Your task to perform on an android device: set default search engine in the chrome app Image 0: 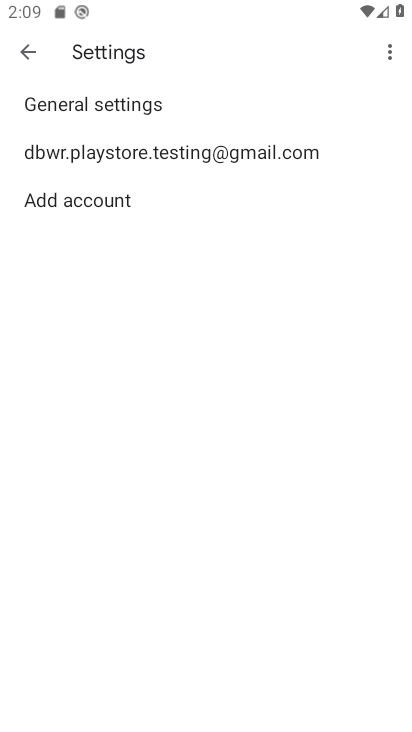
Step 0: press home button
Your task to perform on an android device: set default search engine in the chrome app Image 1: 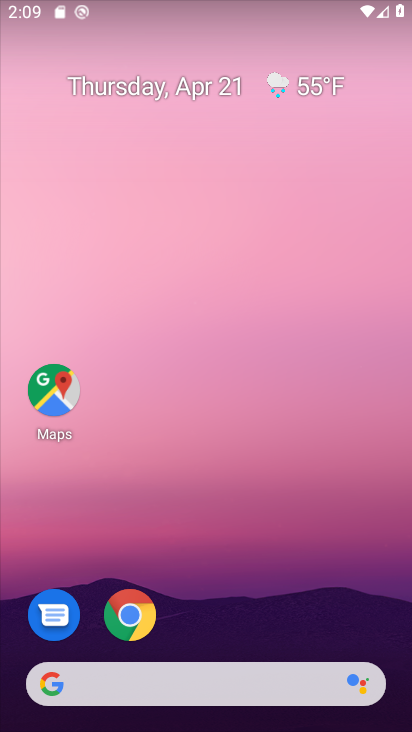
Step 1: click (134, 616)
Your task to perform on an android device: set default search engine in the chrome app Image 2: 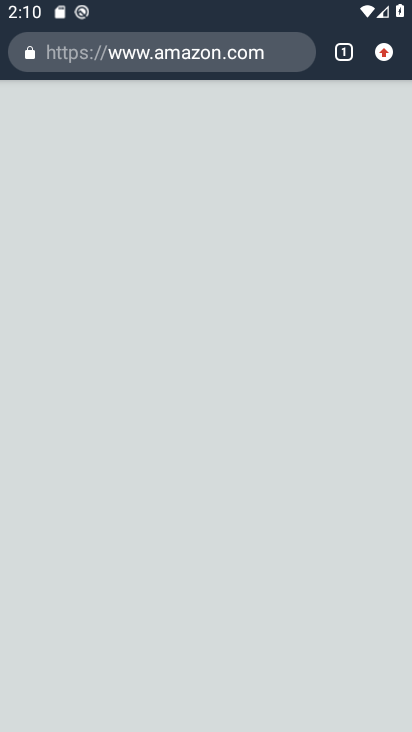
Step 2: click (384, 53)
Your task to perform on an android device: set default search engine in the chrome app Image 3: 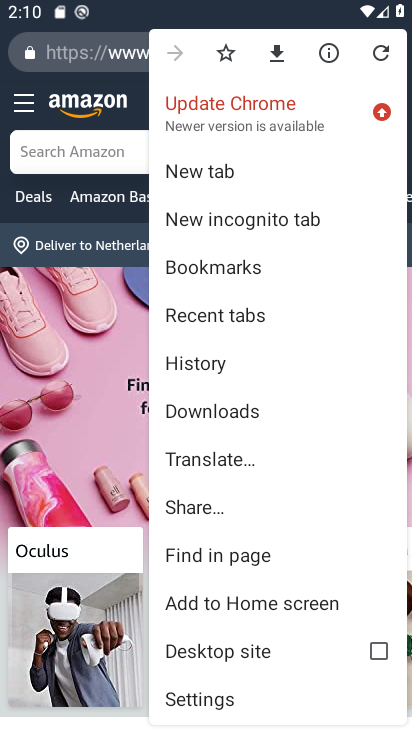
Step 3: drag from (219, 624) to (225, 413)
Your task to perform on an android device: set default search engine in the chrome app Image 4: 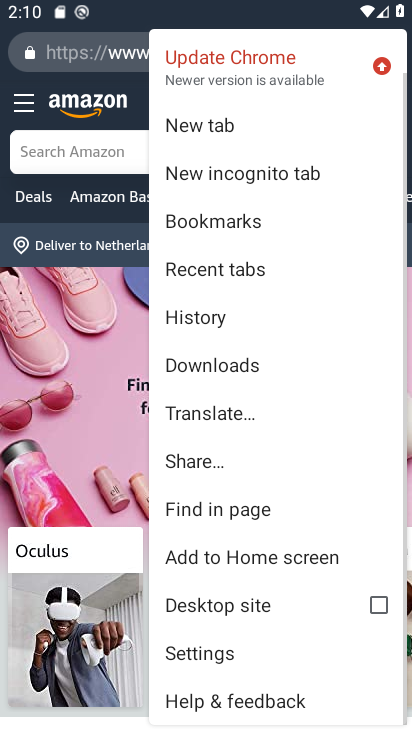
Step 4: click (196, 641)
Your task to perform on an android device: set default search engine in the chrome app Image 5: 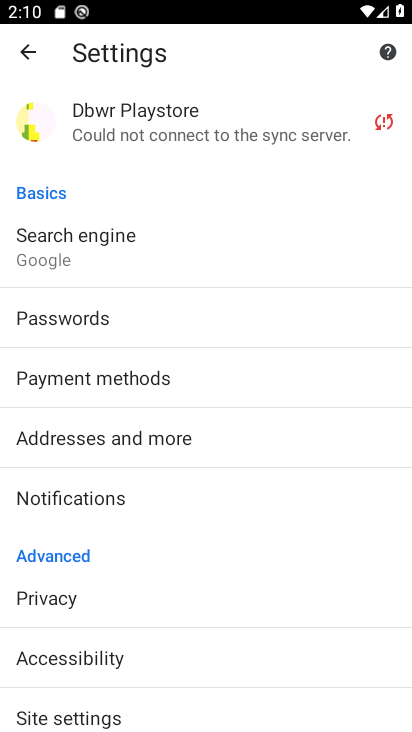
Step 5: click (114, 242)
Your task to perform on an android device: set default search engine in the chrome app Image 6: 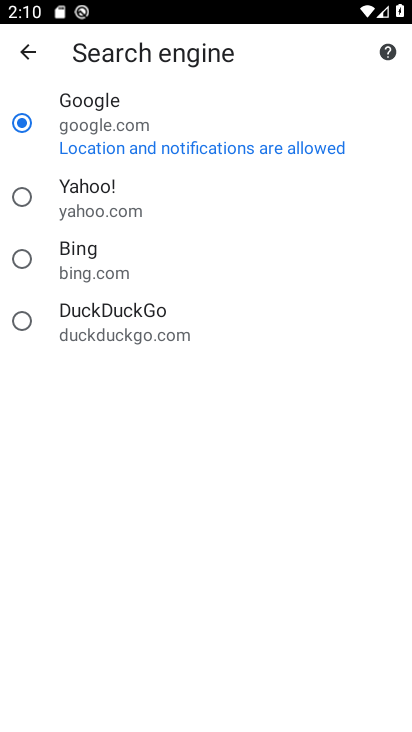
Step 6: click (21, 315)
Your task to perform on an android device: set default search engine in the chrome app Image 7: 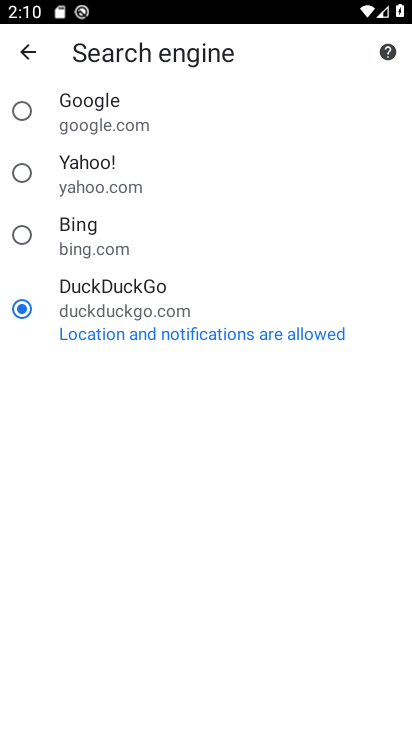
Step 7: task complete